Your task to perform on an android device: change timer sound Image 0: 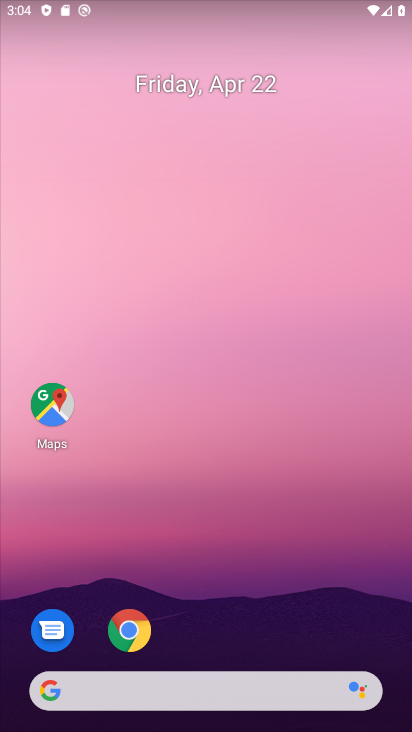
Step 0: click (51, 401)
Your task to perform on an android device: change timer sound Image 1: 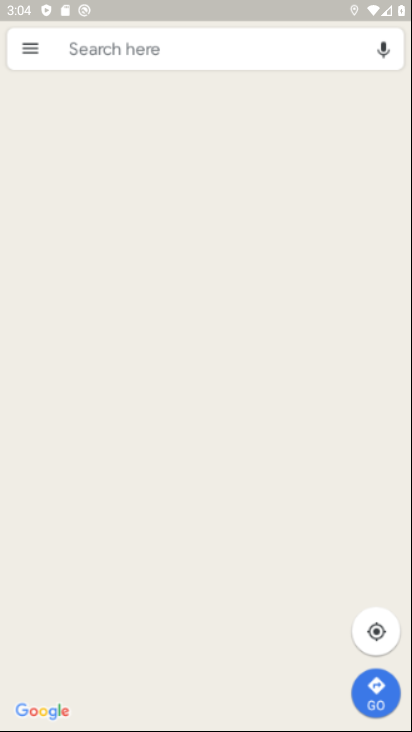
Step 1: press home button
Your task to perform on an android device: change timer sound Image 2: 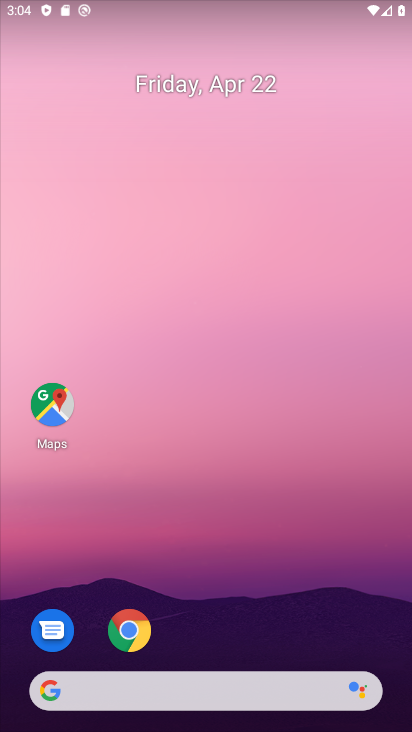
Step 2: drag from (215, 655) to (322, 5)
Your task to perform on an android device: change timer sound Image 3: 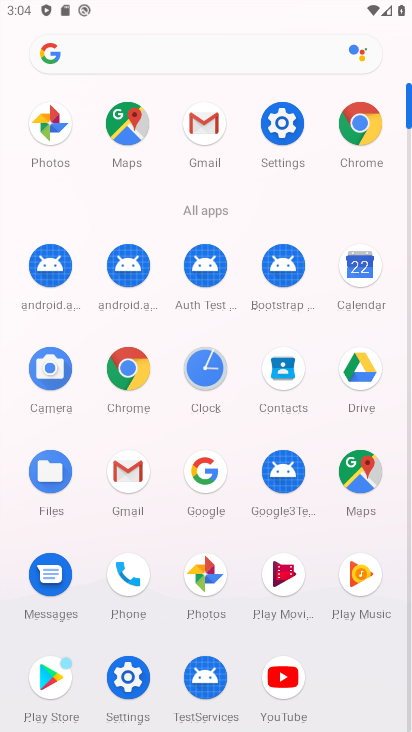
Step 3: click (220, 363)
Your task to perform on an android device: change timer sound Image 4: 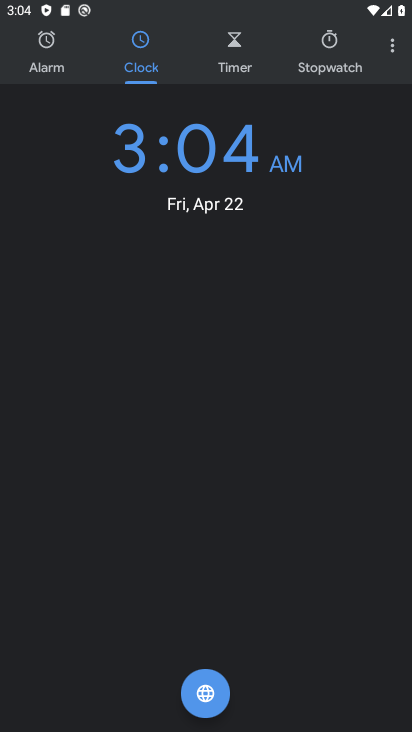
Step 4: click (397, 53)
Your task to perform on an android device: change timer sound Image 5: 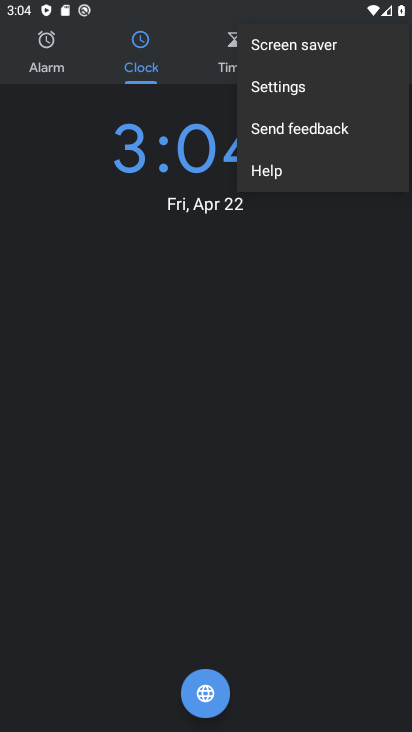
Step 5: click (290, 96)
Your task to perform on an android device: change timer sound Image 6: 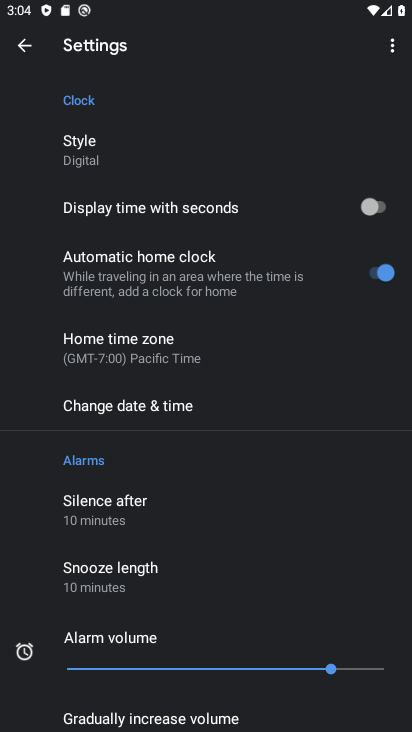
Step 6: drag from (96, 591) to (218, 70)
Your task to perform on an android device: change timer sound Image 7: 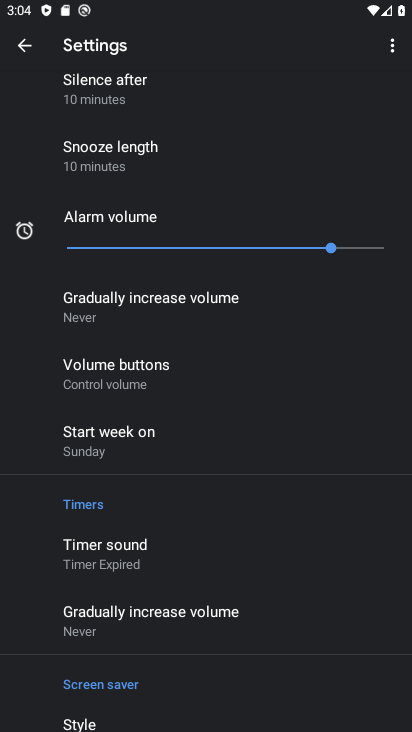
Step 7: click (126, 560)
Your task to perform on an android device: change timer sound Image 8: 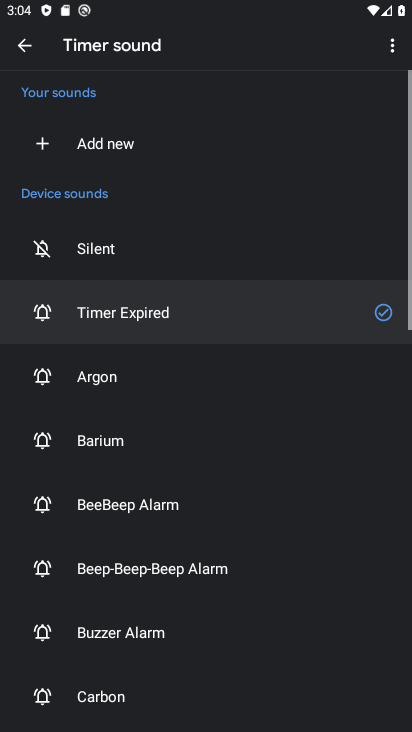
Step 8: drag from (101, 622) to (147, 486)
Your task to perform on an android device: change timer sound Image 9: 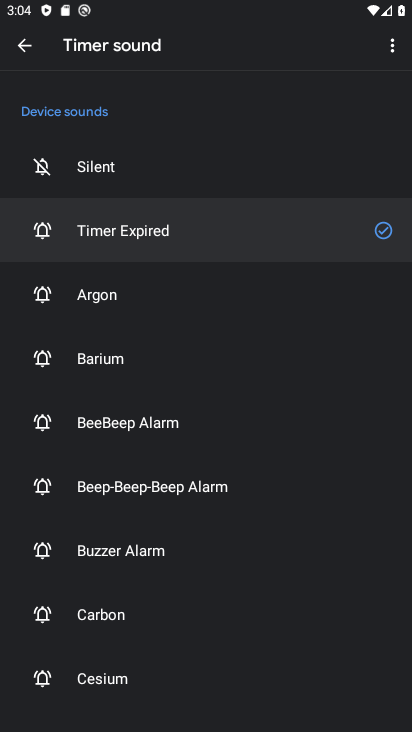
Step 9: click (100, 630)
Your task to perform on an android device: change timer sound Image 10: 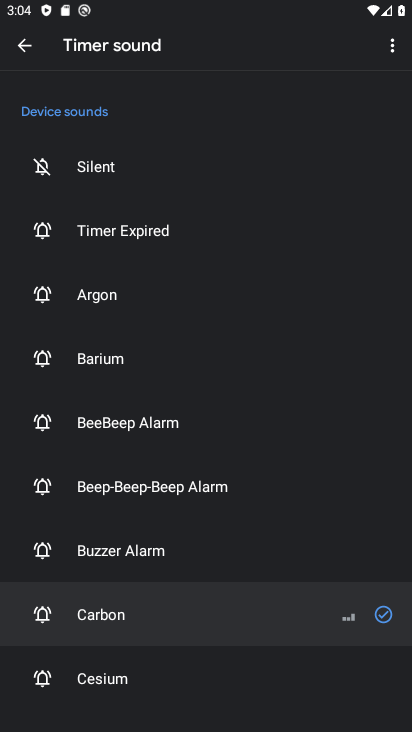
Step 10: task complete